Your task to perform on an android device: Search for amazon basics triple a on costco.com, select the first entry, and add it to the cart. Image 0: 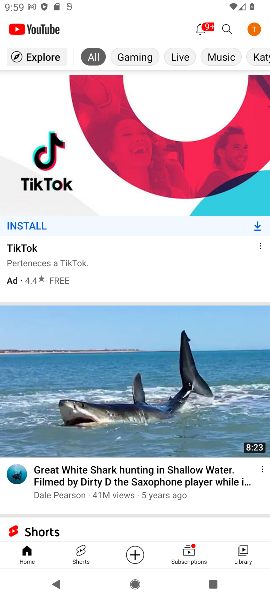
Step 0: press home button
Your task to perform on an android device: Search for amazon basics triple a on costco.com, select the first entry, and add it to the cart. Image 1: 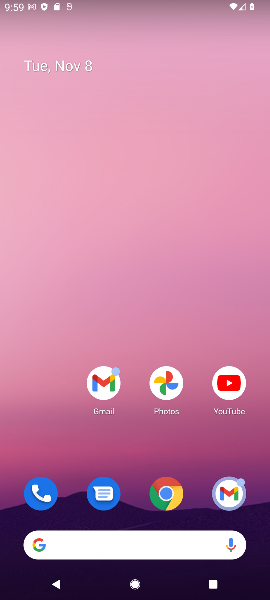
Step 1: click (164, 496)
Your task to perform on an android device: Search for amazon basics triple a on costco.com, select the first entry, and add it to the cart. Image 2: 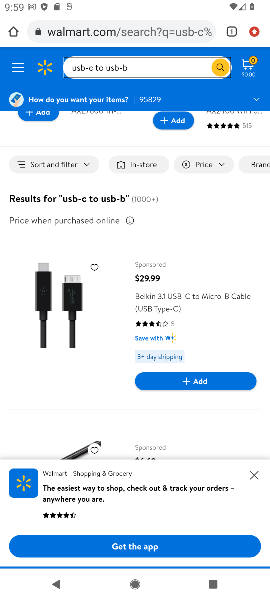
Step 2: click (102, 33)
Your task to perform on an android device: Search for amazon basics triple a on costco.com, select the first entry, and add it to the cart. Image 3: 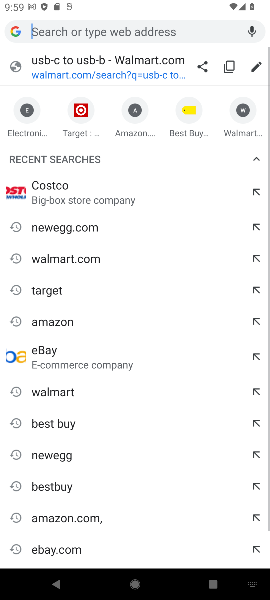
Step 3: click (51, 199)
Your task to perform on an android device: Search for amazon basics triple a on costco.com, select the first entry, and add it to the cart. Image 4: 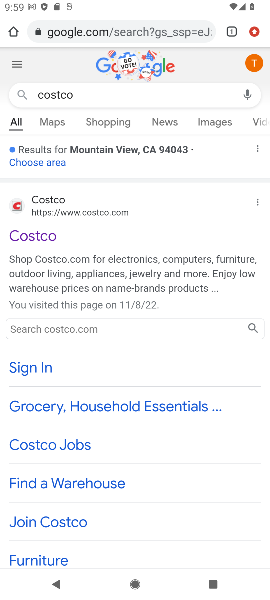
Step 4: click (44, 229)
Your task to perform on an android device: Search for amazon basics triple a on costco.com, select the first entry, and add it to the cart. Image 5: 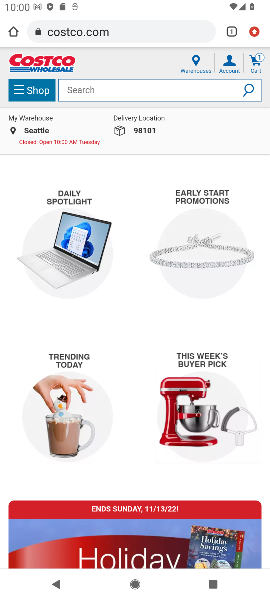
Step 5: click (142, 96)
Your task to perform on an android device: Search for amazon basics triple a on costco.com, select the first entry, and add it to the cart. Image 6: 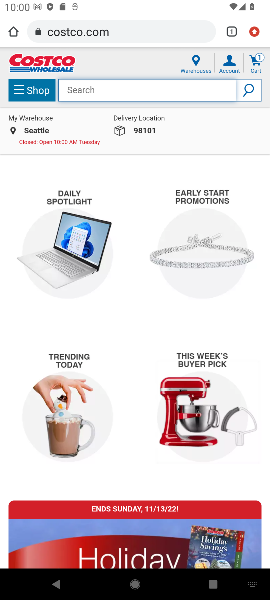
Step 6: type "amazon basics triple a"
Your task to perform on an android device: Search for amazon basics triple a on costco.com, select the first entry, and add it to the cart. Image 7: 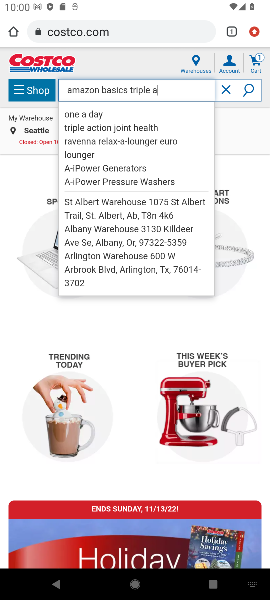
Step 7: click (245, 89)
Your task to perform on an android device: Search for amazon basics triple a on costco.com, select the first entry, and add it to the cart. Image 8: 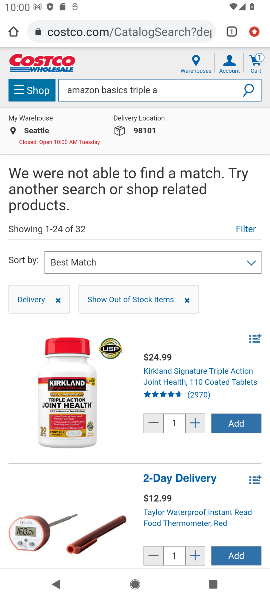
Step 8: task complete